Your task to perform on an android device: stop showing notifications on the lock screen Image 0: 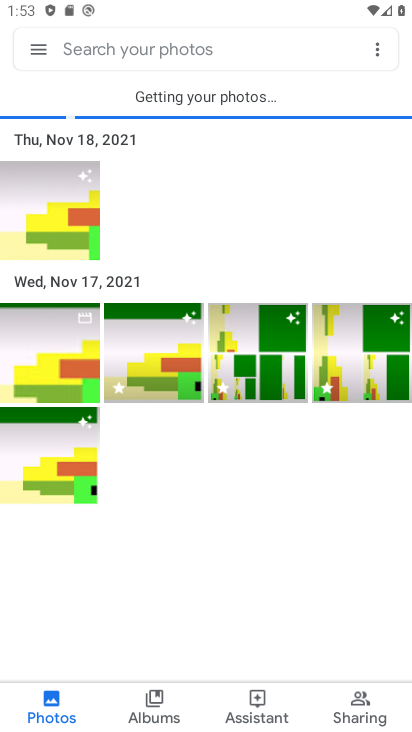
Step 0: press home button
Your task to perform on an android device: stop showing notifications on the lock screen Image 1: 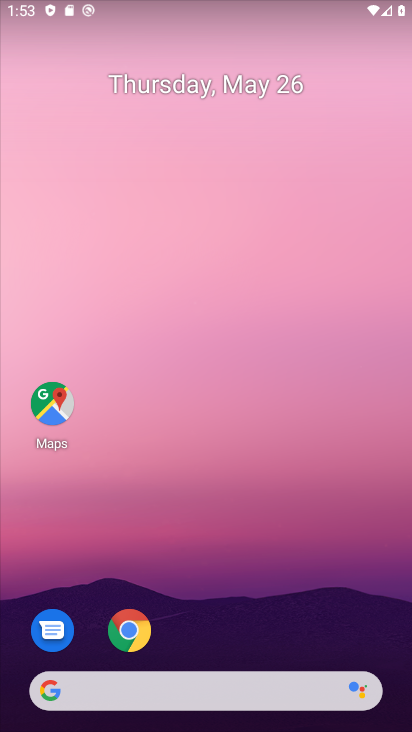
Step 1: drag from (251, 646) to (243, 357)
Your task to perform on an android device: stop showing notifications on the lock screen Image 2: 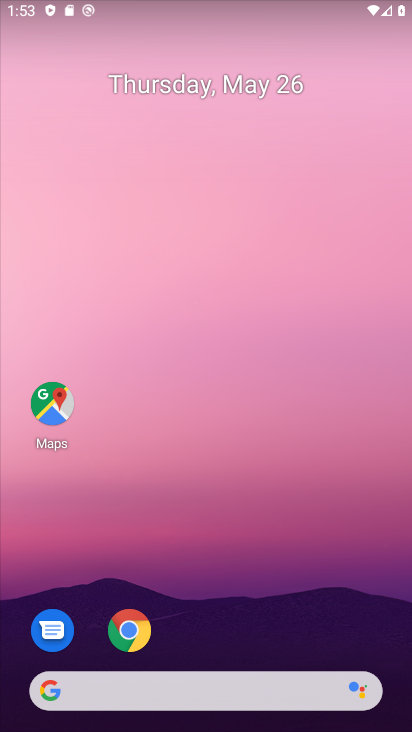
Step 2: drag from (265, 655) to (258, 325)
Your task to perform on an android device: stop showing notifications on the lock screen Image 3: 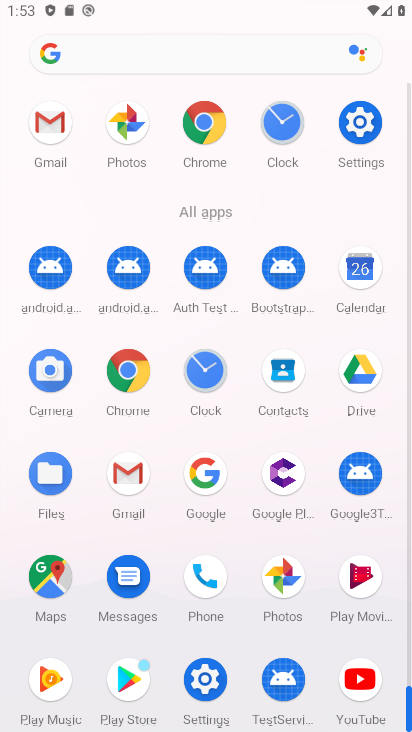
Step 3: click (371, 129)
Your task to perform on an android device: stop showing notifications on the lock screen Image 4: 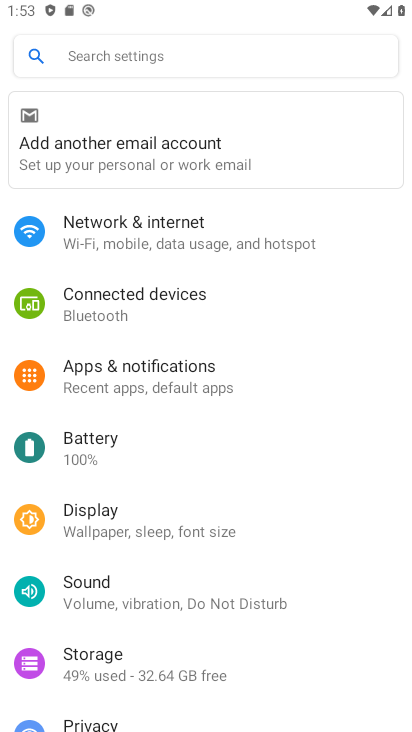
Step 4: click (168, 385)
Your task to perform on an android device: stop showing notifications on the lock screen Image 5: 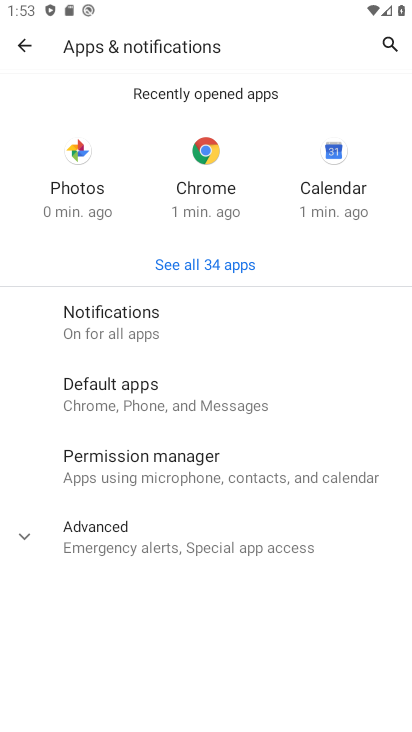
Step 5: click (176, 332)
Your task to perform on an android device: stop showing notifications on the lock screen Image 6: 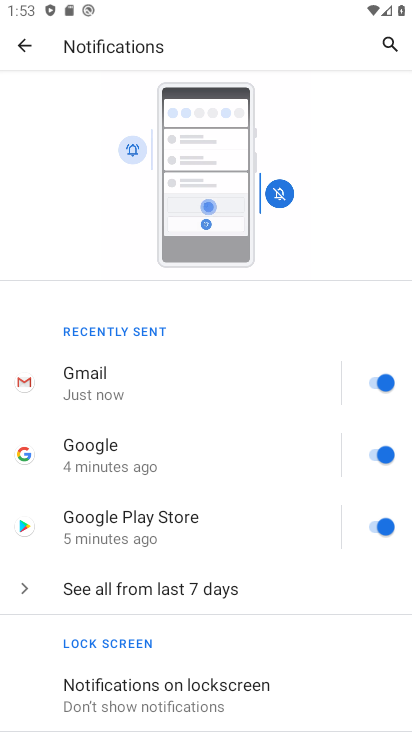
Step 6: click (188, 711)
Your task to perform on an android device: stop showing notifications on the lock screen Image 7: 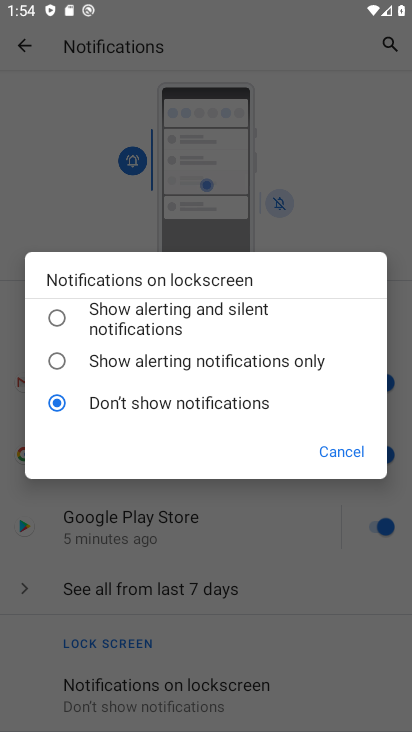
Step 7: click (101, 408)
Your task to perform on an android device: stop showing notifications on the lock screen Image 8: 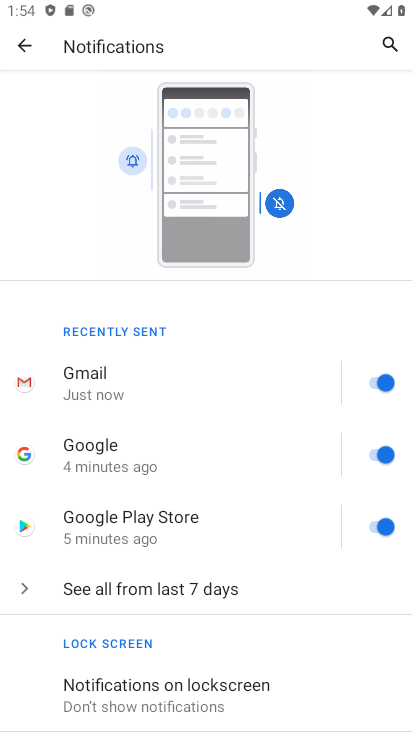
Step 8: task complete